Your task to perform on an android device: Go to ESPN.com Image 0: 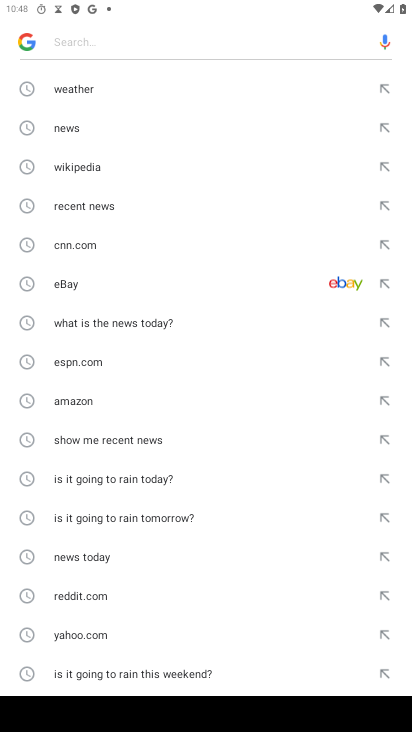
Step 0: press back button
Your task to perform on an android device: Go to ESPN.com Image 1: 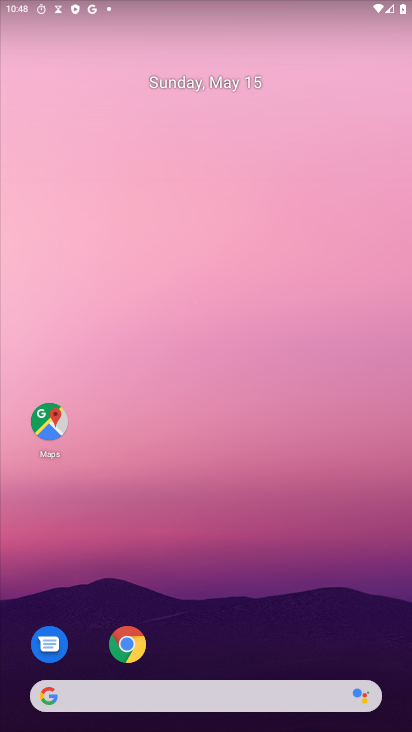
Step 1: drag from (228, 635) to (186, 172)
Your task to perform on an android device: Go to ESPN.com Image 2: 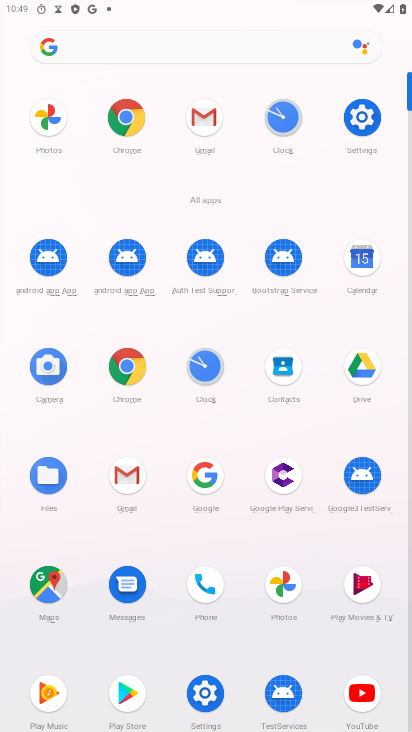
Step 2: click (131, 129)
Your task to perform on an android device: Go to ESPN.com Image 3: 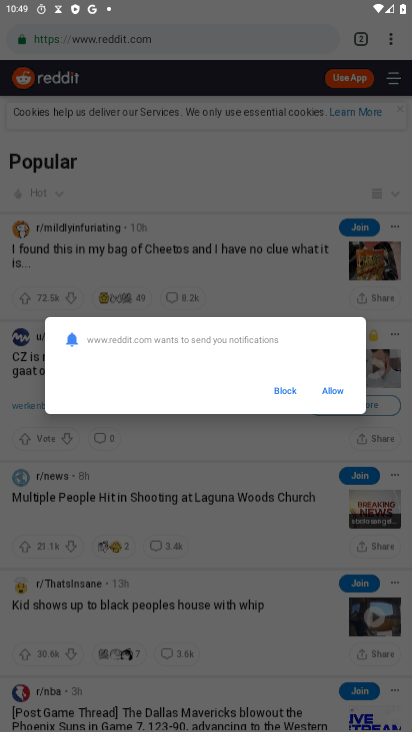
Step 3: click (316, 391)
Your task to perform on an android device: Go to ESPN.com Image 4: 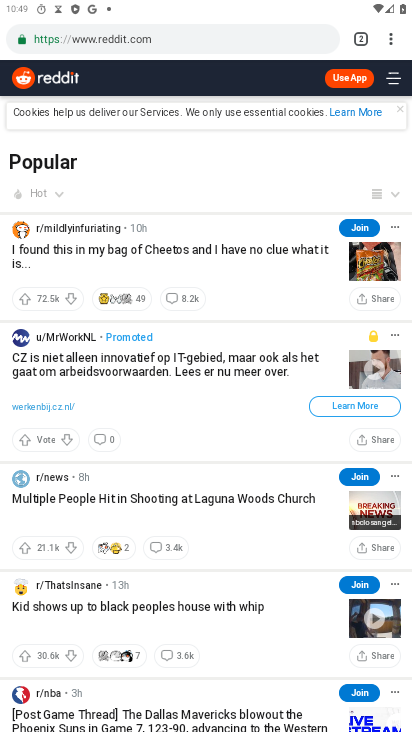
Step 4: click (356, 41)
Your task to perform on an android device: Go to ESPN.com Image 5: 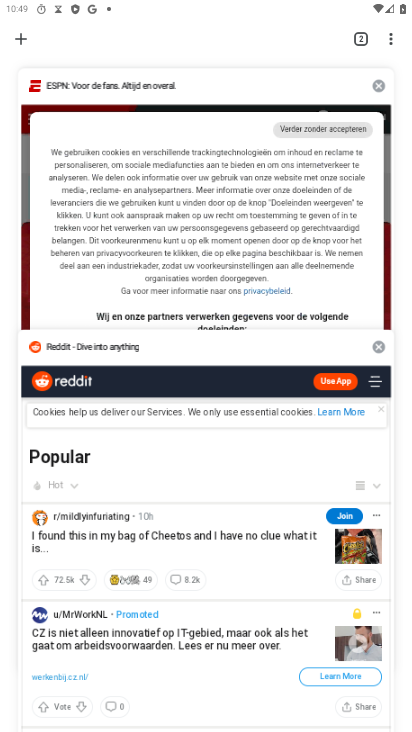
Step 5: click (250, 162)
Your task to perform on an android device: Go to ESPN.com Image 6: 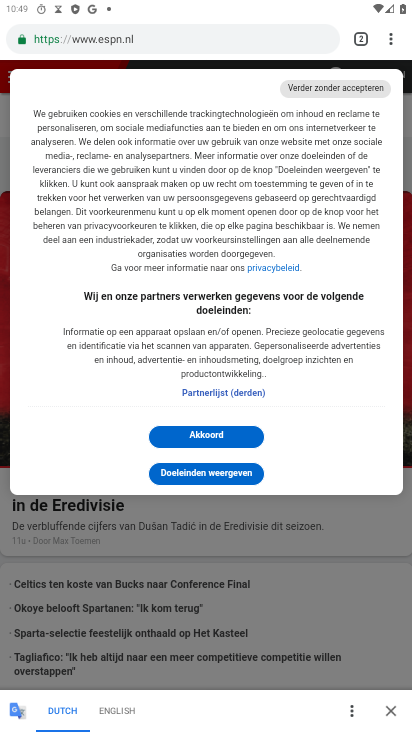
Step 6: task complete